Your task to perform on an android device: Go to Google maps Image 0: 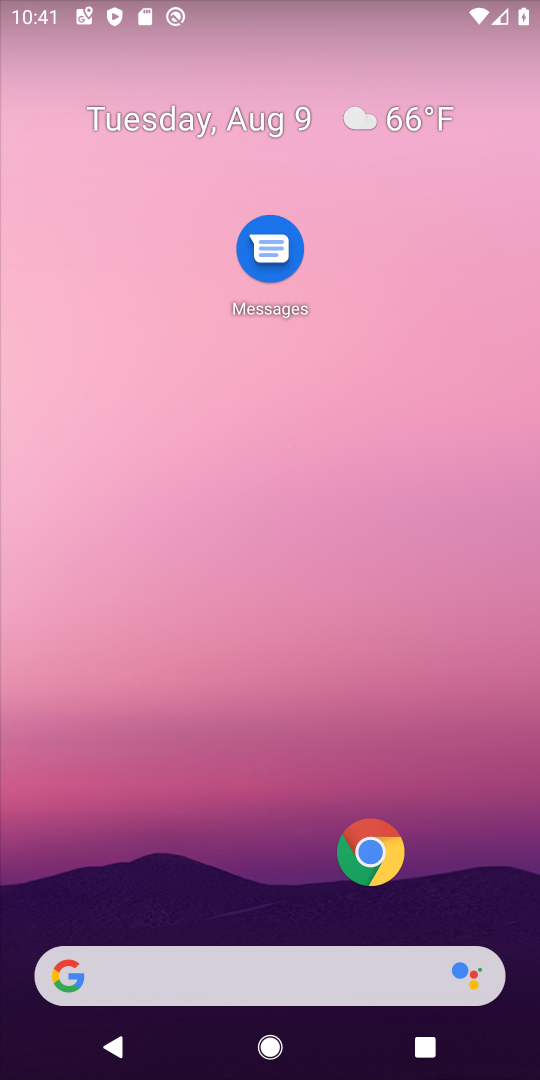
Step 0: drag from (251, 832) to (163, 123)
Your task to perform on an android device: Go to Google maps Image 1: 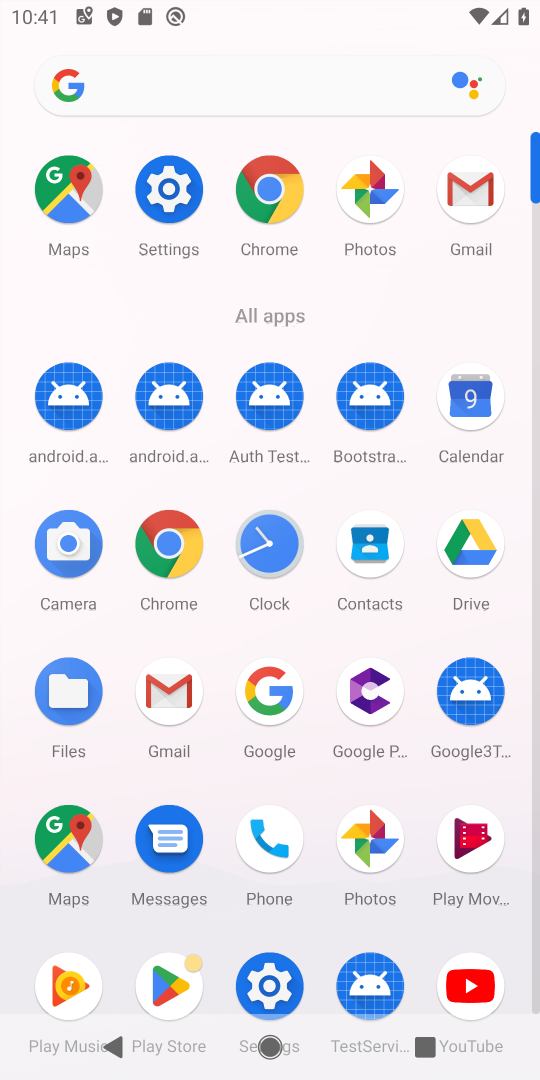
Step 1: click (63, 194)
Your task to perform on an android device: Go to Google maps Image 2: 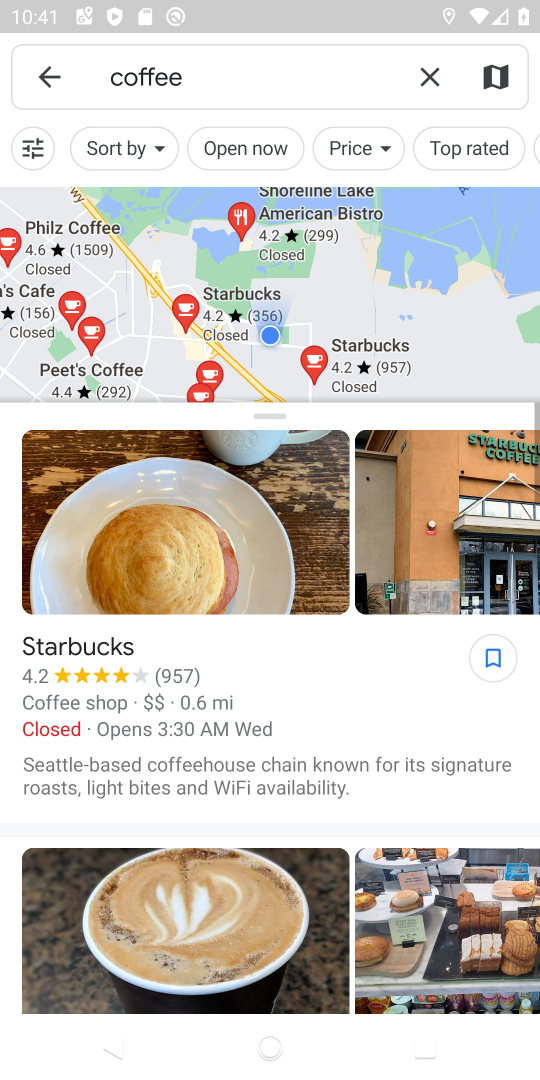
Step 2: task complete